Your task to perform on an android device: When is my next meeting? Image 0: 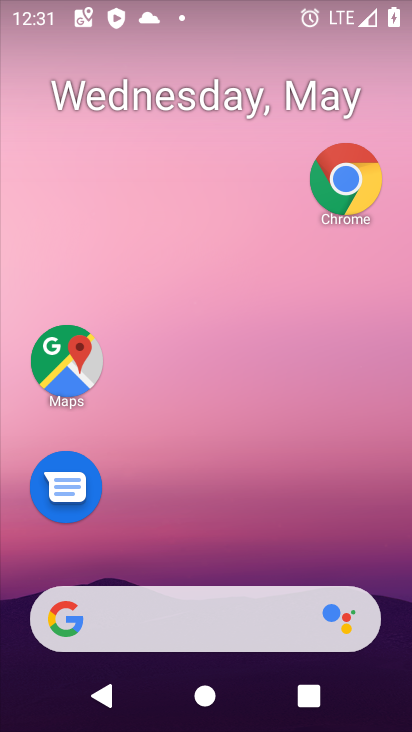
Step 0: drag from (200, 555) to (206, 165)
Your task to perform on an android device: When is my next meeting? Image 1: 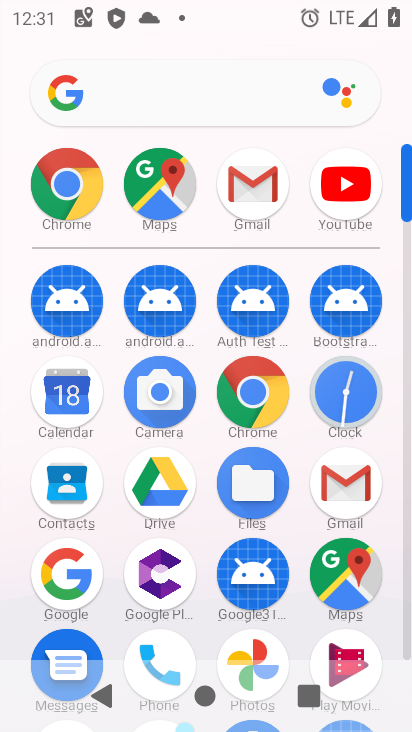
Step 1: click (66, 385)
Your task to perform on an android device: When is my next meeting? Image 2: 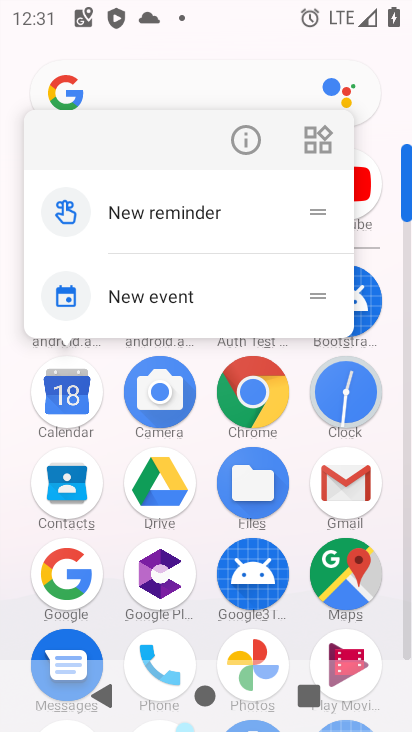
Step 2: click (235, 147)
Your task to perform on an android device: When is my next meeting? Image 3: 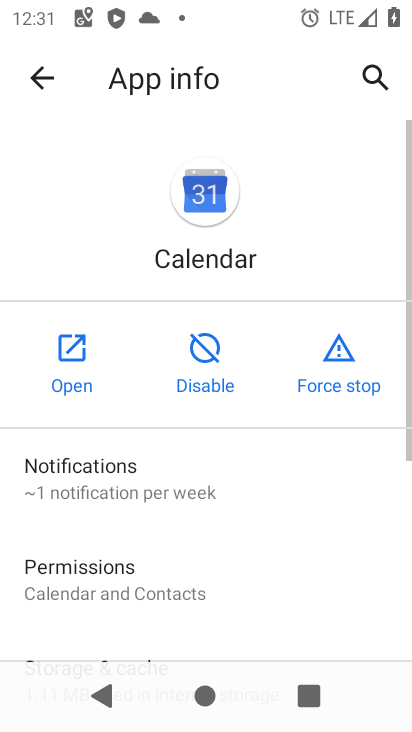
Step 3: drag from (47, 324) to (81, 348)
Your task to perform on an android device: When is my next meeting? Image 4: 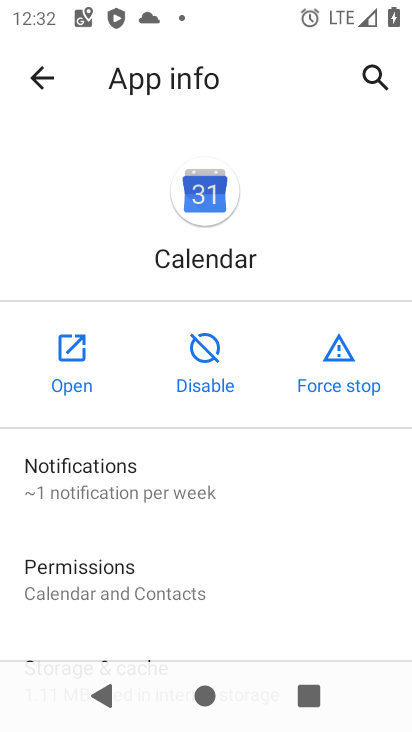
Step 4: click (63, 340)
Your task to perform on an android device: When is my next meeting? Image 5: 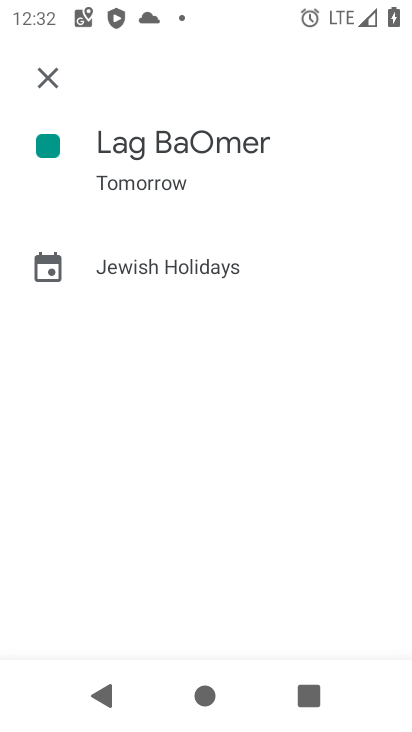
Step 5: click (57, 69)
Your task to perform on an android device: When is my next meeting? Image 6: 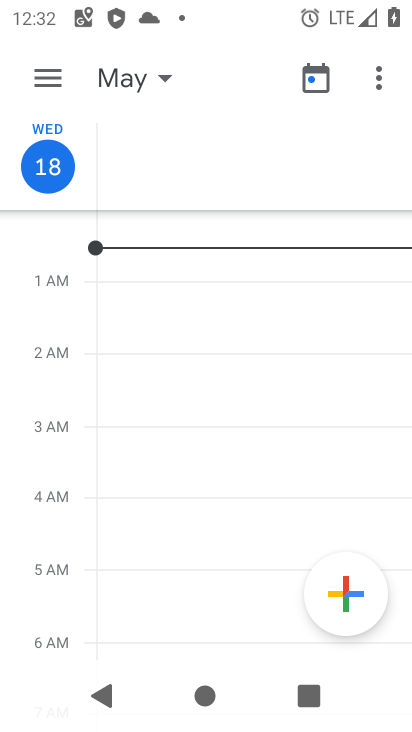
Step 6: click (166, 60)
Your task to perform on an android device: When is my next meeting? Image 7: 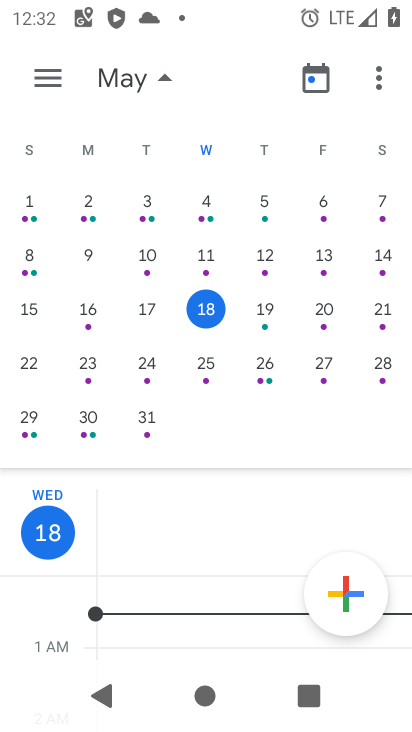
Step 7: drag from (209, 509) to (276, 205)
Your task to perform on an android device: When is my next meeting? Image 8: 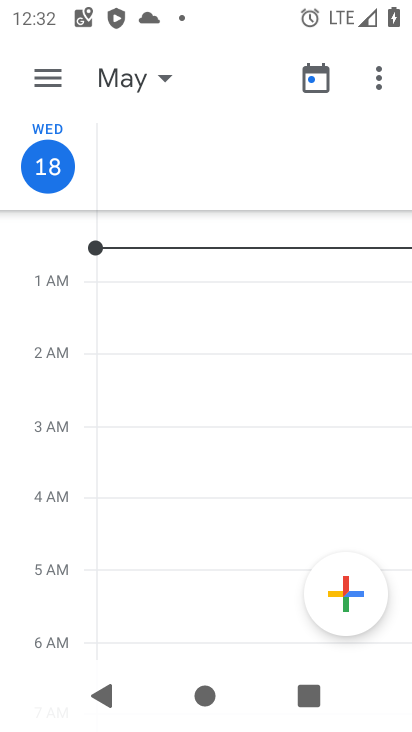
Step 8: drag from (260, 237) to (201, 547)
Your task to perform on an android device: When is my next meeting? Image 9: 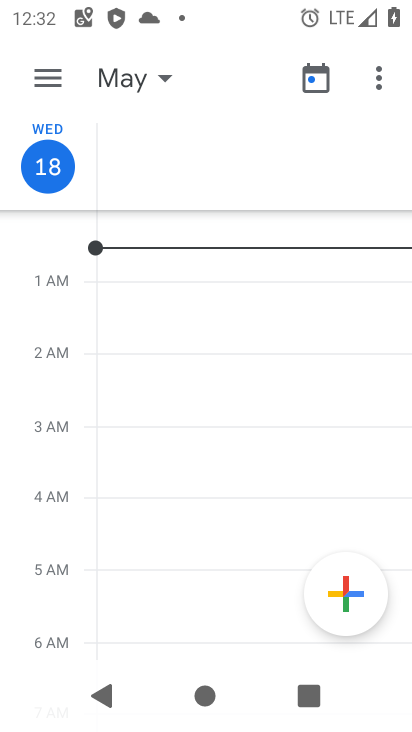
Step 9: drag from (209, 294) to (173, 726)
Your task to perform on an android device: When is my next meeting? Image 10: 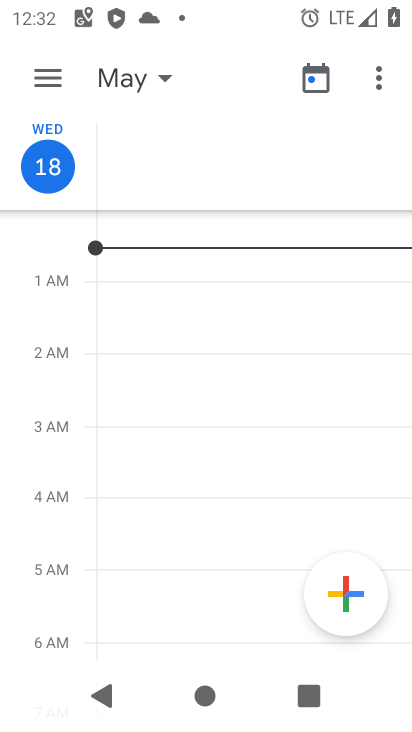
Step 10: drag from (226, 248) to (245, 634)
Your task to perform on an android device: When is my next meeting? Image 11: 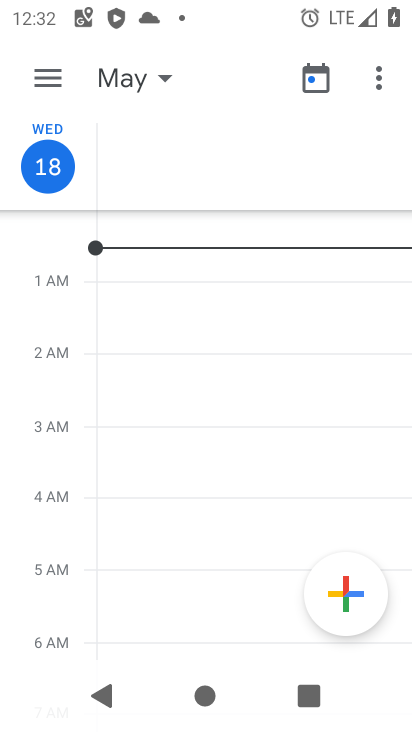
Step 11: click (139, 82)
Your task to perform on an android device: When is my next meeting? Image 12: 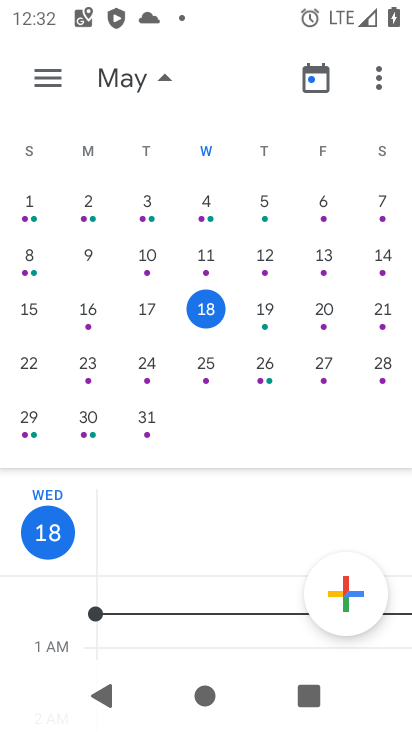
Step 12: click (269, 325)
Your task to perform on an android device: When is my next meeting? Image 13: 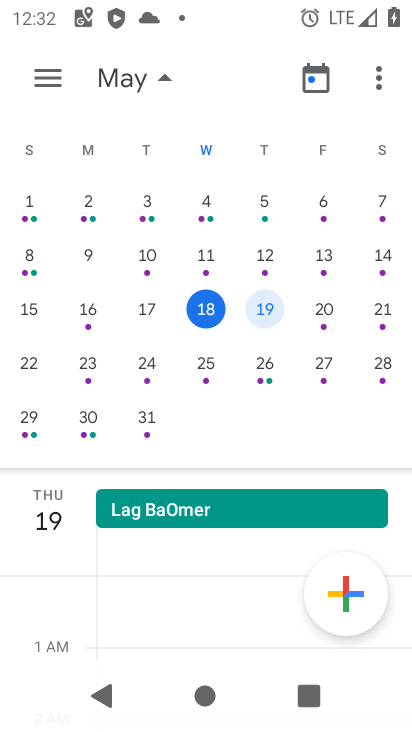
Step 13: task complete